Your task to perform on an android device: Open the stopwatch Image 0: 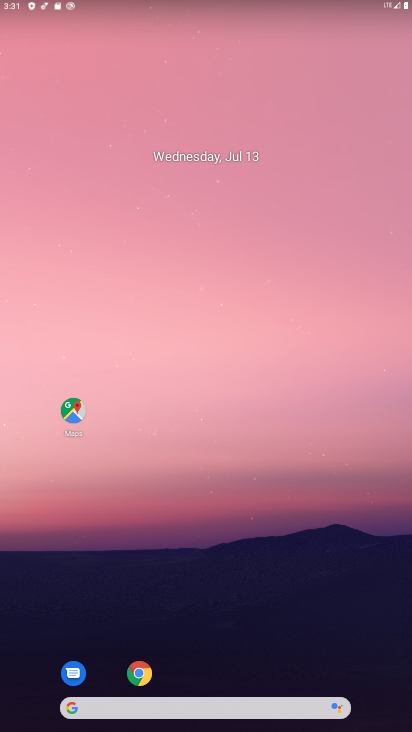
Step 0: drag from (192, 702) to (246, 186)
Your task to perform on an android device: Open the stopwatch Image 1: 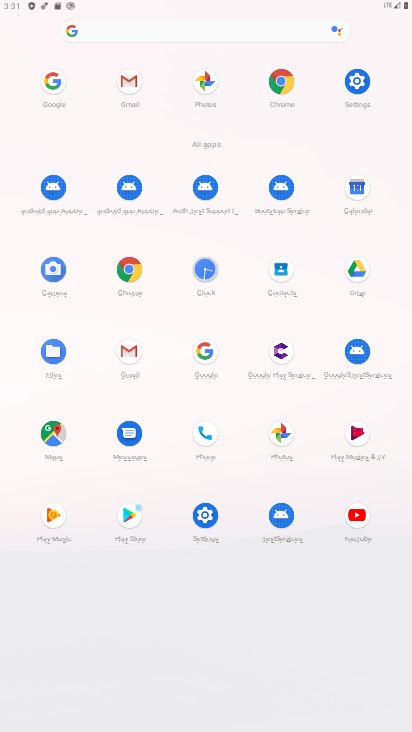
Step 1: click (204, 268)
Your task to perform on an android device: Open the stopwatch Image 2: 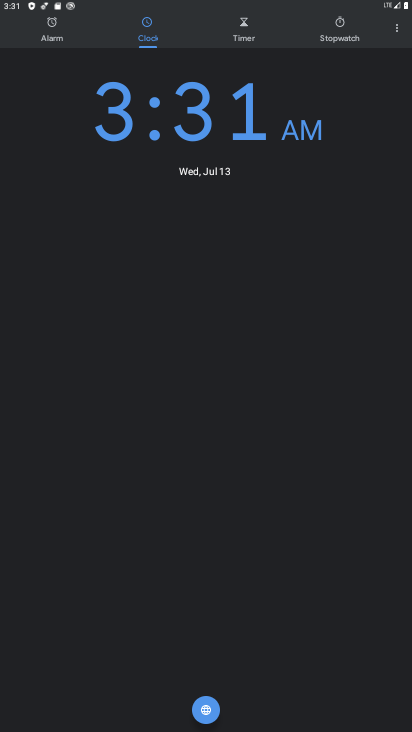
Step 2: click (340, 22)
Your task to perform on an android device: Open the stopwatch Image 3: 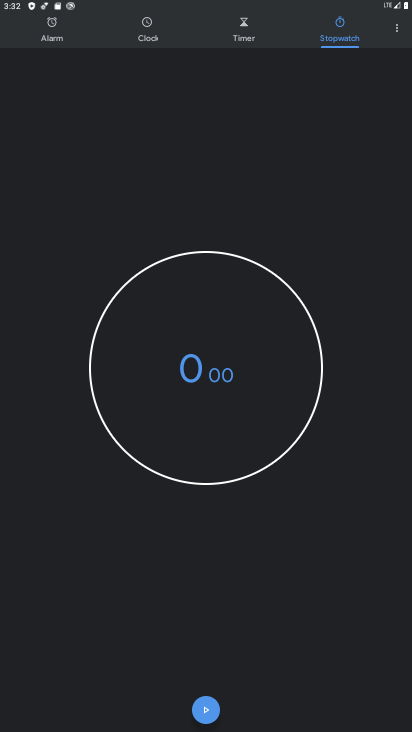
Step 3: task complete